Your task to perform on an android device: Search for sushi restaurants on Maps Image 0: 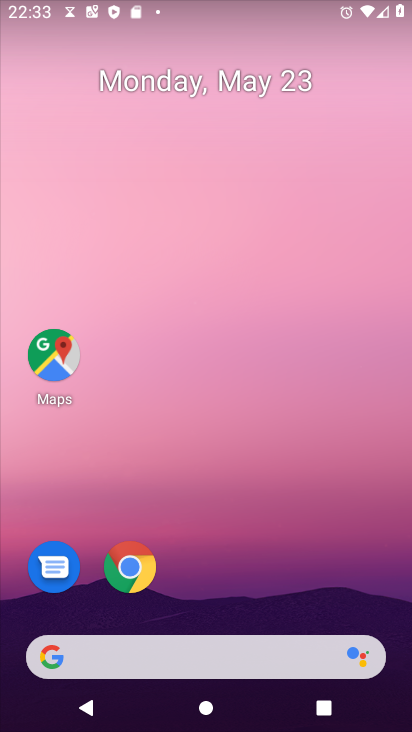
Step 0: drag from (224, 523) to (188, 153)
Your task to perform on an android device: Search for sushi restaurants on Maps Image 1: 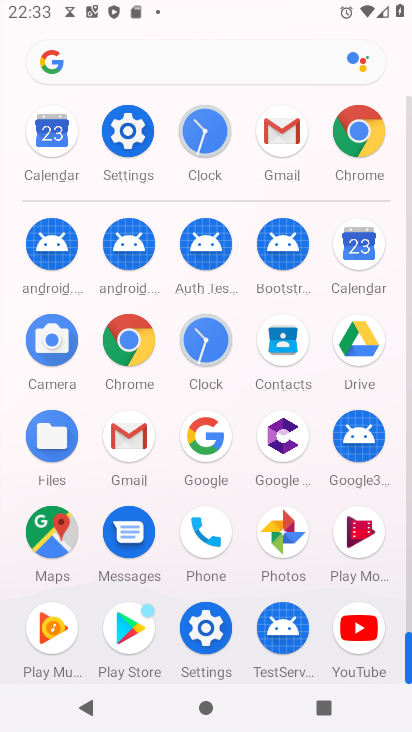
Step 1: click (49, 516)
Your task to perform on an android device: Search for sushi restaurants on Maps Image 2: 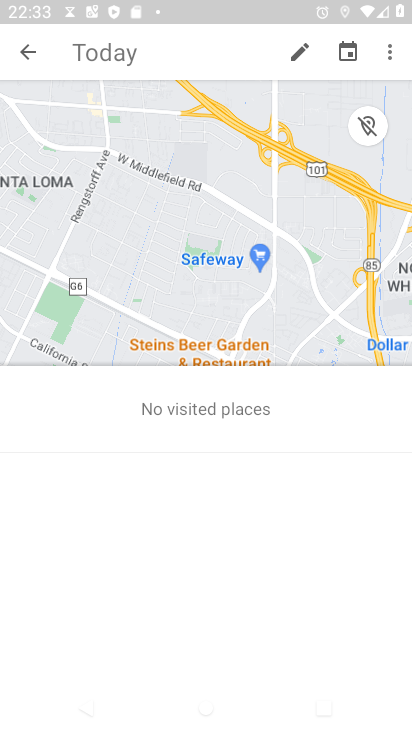
Step 2: click (41, 57)
Your task to perform on an android device: Search for sushi restaurants on Maps Image 3: 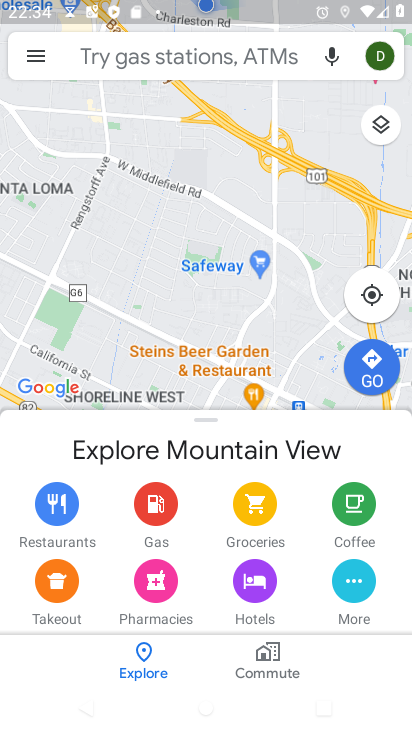
Step 3: click (244, 42)
Your task to perform on an android device: Search for sushi restaurants on Maps Image 4: 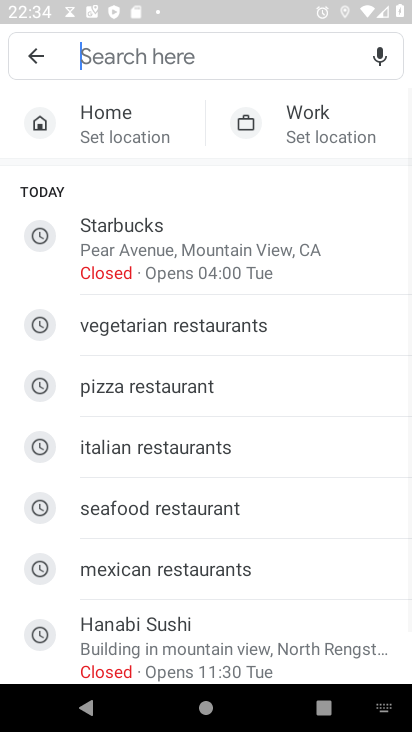
Step 4: type "sushi restaurants"
Your task to perform on an android device: Search for sushi restaurants on Maps Image 5: 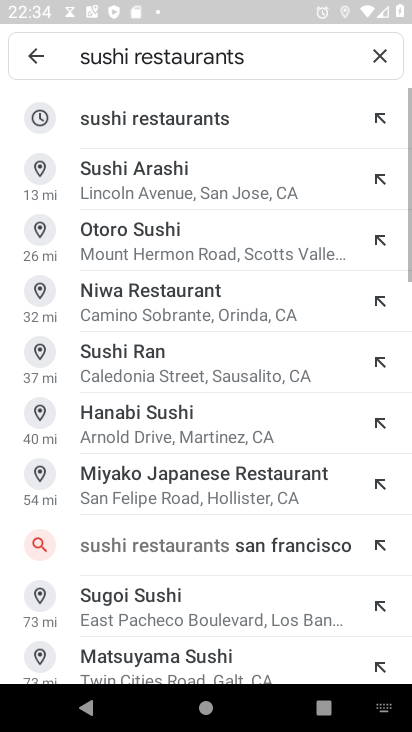
Step 5: click (216, 115)
Your task to perform on an android device: Search for sushi restaurants on Maps Image 6: 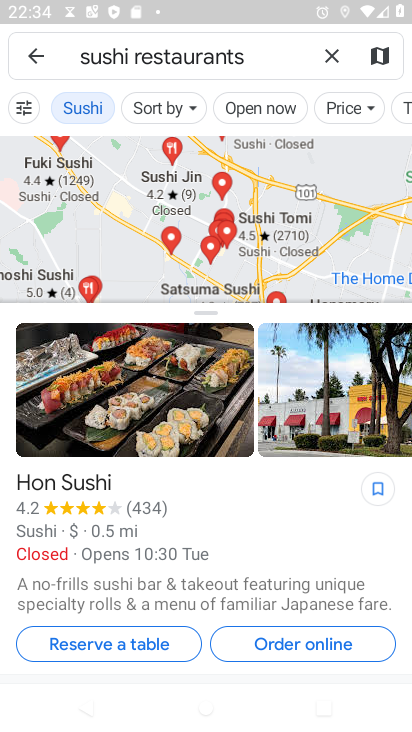
Step 6: task complete